Your task to perform on an android device: What's the weather today? Image 0: 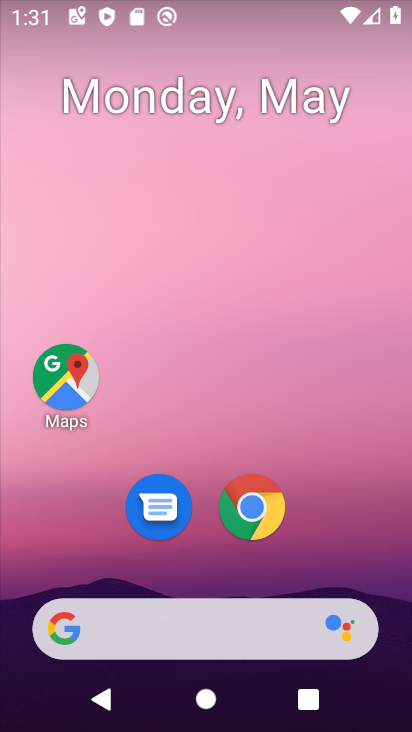
Step 0: drag from (249, 723) to (244, 2)
Your task to perform on an android device: What's the weather today? Image 1: 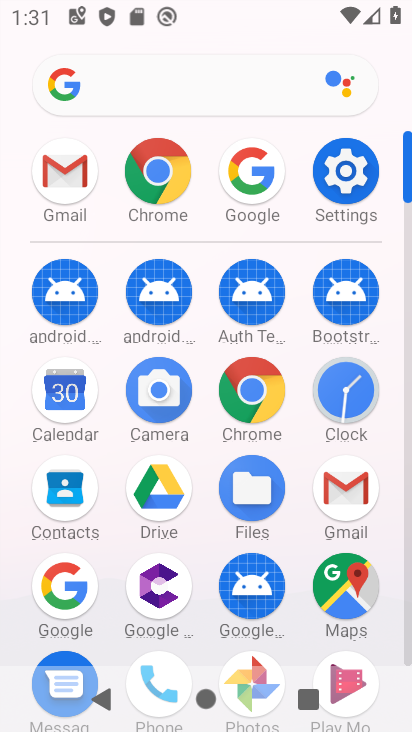
Step 1: drag from (208, 607) to (178, 149)
Your task to perform on an android device: What's the weather today? Image 2: 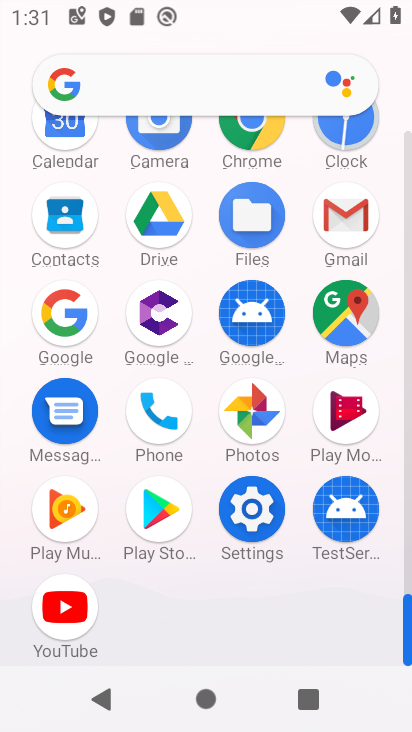
Step 2: click (61, 314)
Your task to perform on an android device: What's the weather today? Image 3: 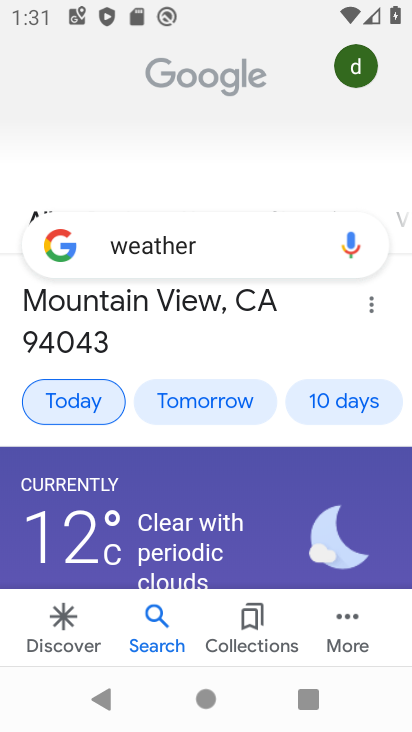
Step 3: click (73, 404)
Your task to perform on an android device: What's the weather today? Image 4: 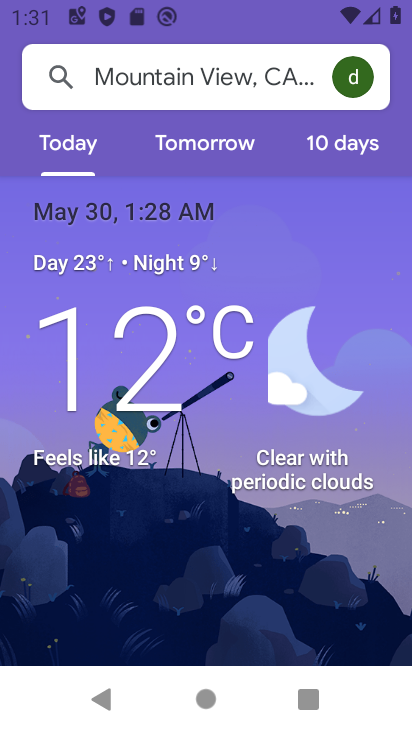
Step 4: task complete